Your task to perform on an android device: turn on bluetooth scan Image 0: 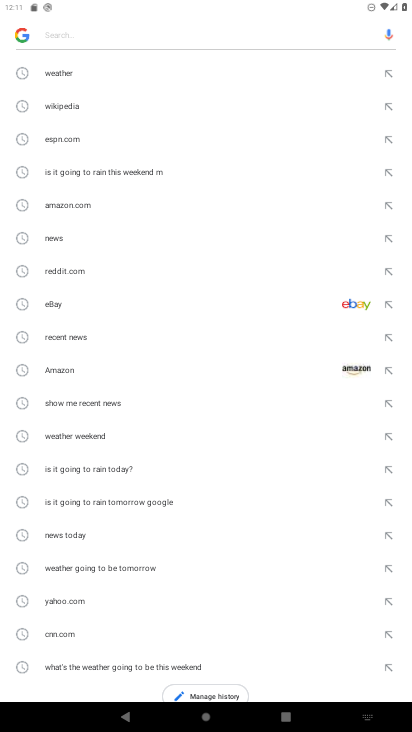
Step 0: press home button
Your task to perform on an android device: turn on bluetooth scan Image 1: 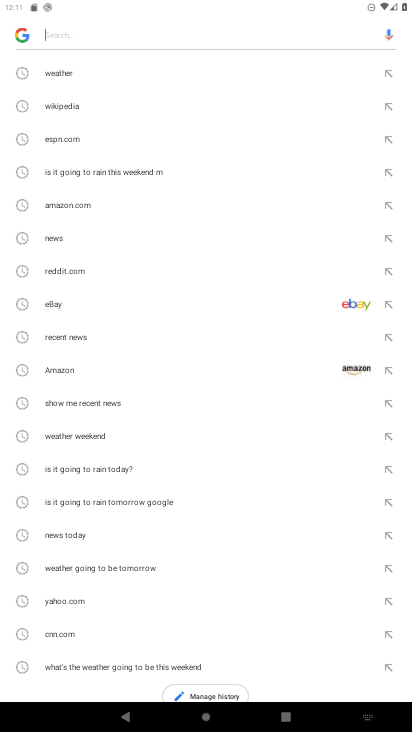
Step 1: press home button
Your task to perform on an android device: turn on bluetooth scan Image 2: 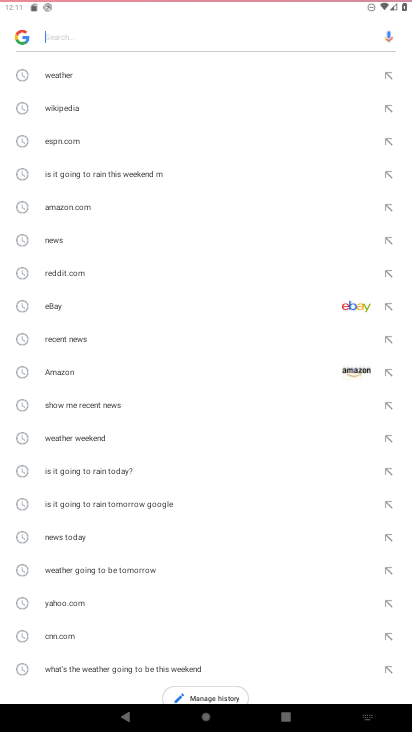
Step 2: drag from (354, 34) to (66, 26)
Your task to perform on an android device: turn on bluetooth scan Image 3: 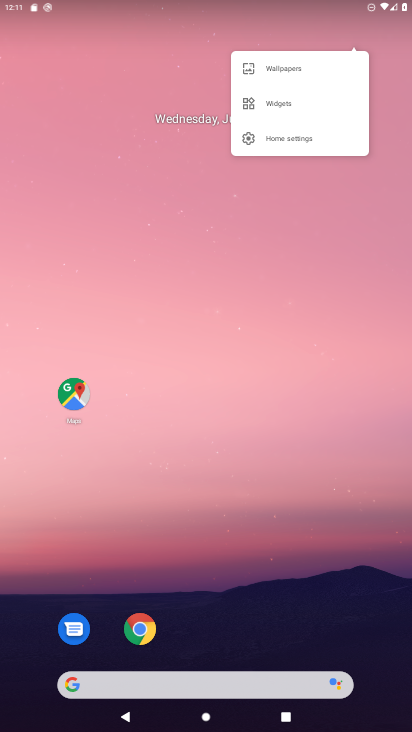
Step 3: drag from (212, 617) to (393, 44)
Your task to perform on an android device: turn on bluetooth scan Image 4: 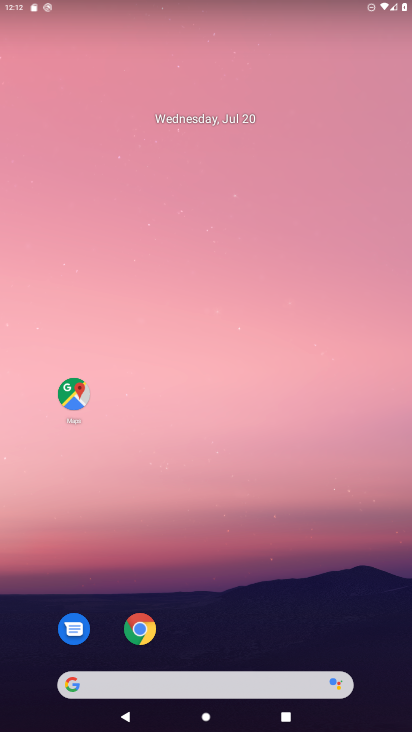
Step 4: drag from (188, 612) to (189, 139)
Your task to perform on an android device: turn on bluetooth scan Image 5: 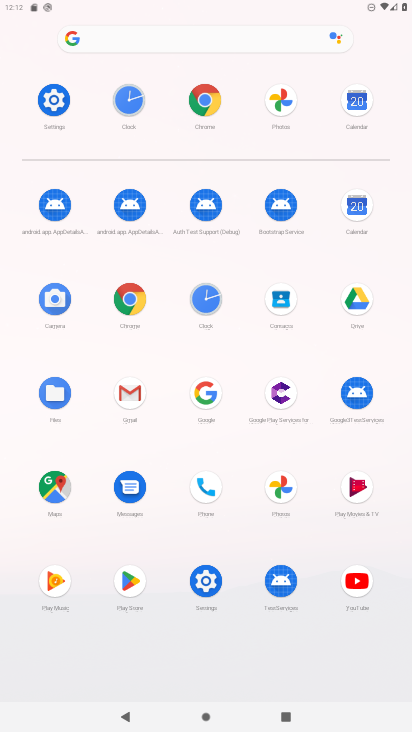
Step 5: click (192, 587)
Your task to perform on an android device: turn on bluetooth scan Image 6: 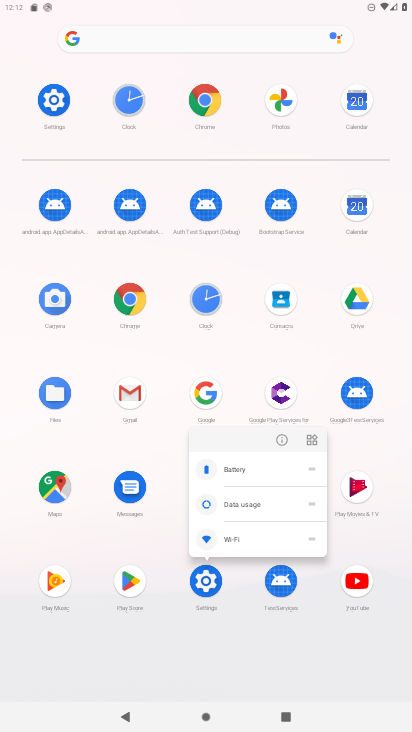
Step 6: click (283, 437)
Your task to perform on an android device: turn on bluetooth scan Image 7: 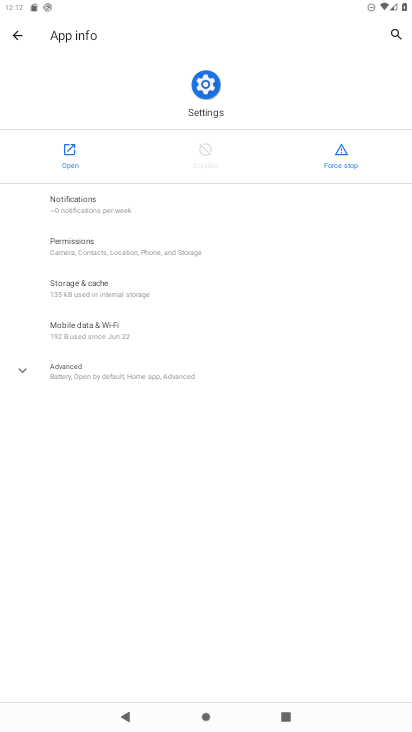
Step 7: click (74, 152)
Your task to perform on an android device: turn on bluetooth scan Image 8: 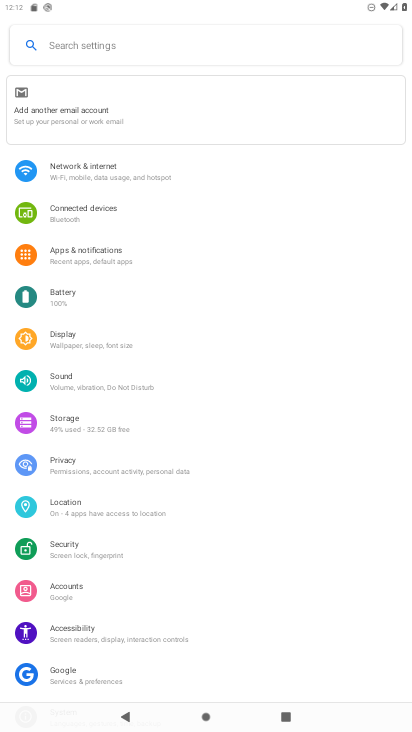
Step 8: click (86, 494)
Your task to perform on an android device: turn on bluetooth scan Image 9: 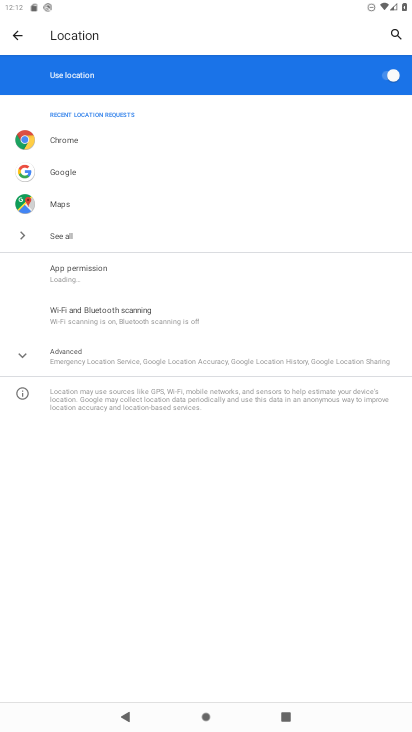
Step 9: click (115, 325)
Your task to perform on an android device: turn on bluetooth scan Image 10: 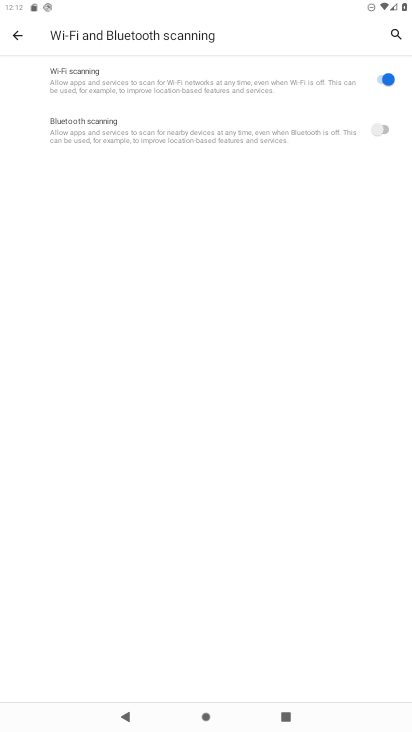
Step 10: click (341, 131)
Your task to perform on an android device: turn on bluetooth scan Image 11: 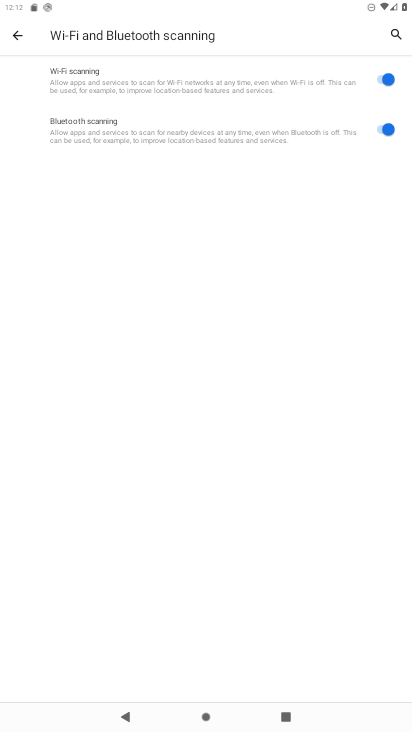
Step 11: task complete